Your task to perform on an android device: Go to privacy settings Image 0: 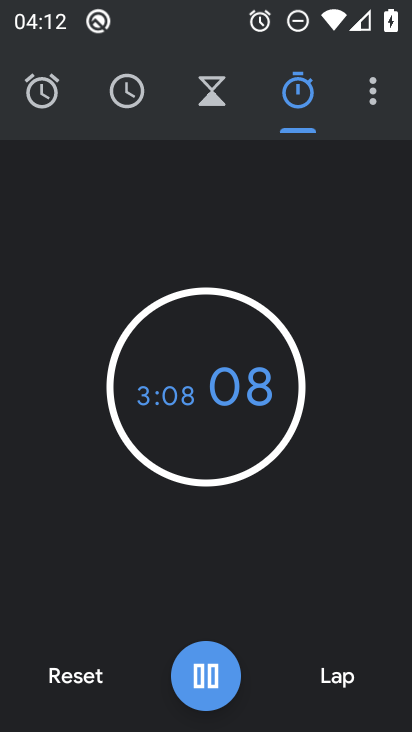
Step 0: press home button
Your task to perform on an android device: Go to privacy settings Image 1: 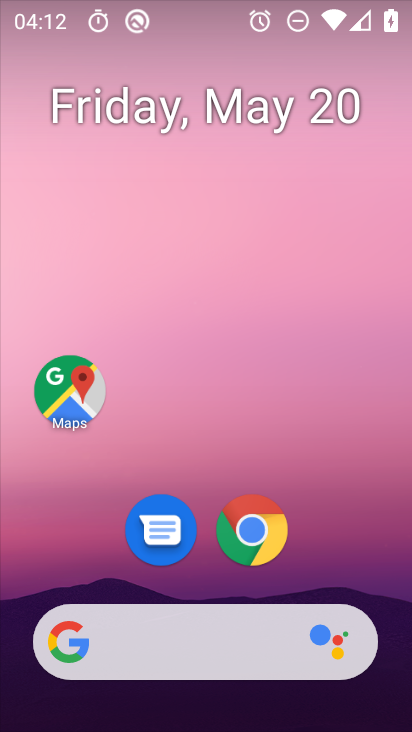
Step 1: click (253, 531)
Your task to perform on an android device: Go to privacy settings Image 2: 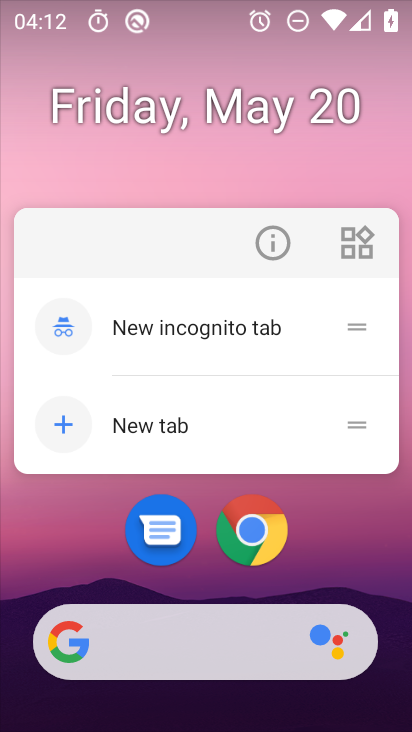
Step 2: click (251, 512)
Your task to perform on an android device: Go to privacy settings Image 3: 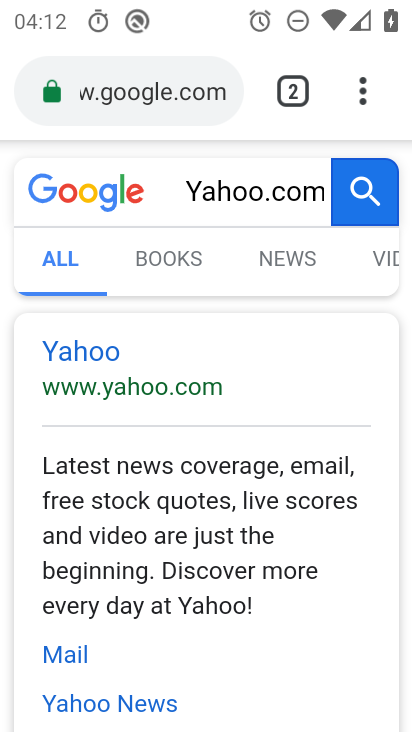
Step 3: click (364, 87)
Your task to perform on an android device: Go to privacy settings Image 4: 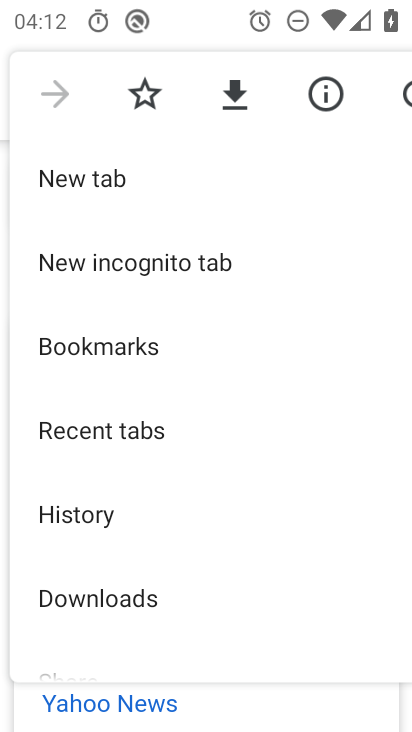
Step 4: drag from (279, 648) to (274, 362)
Your task to perform on an android device: Go to privacy settings Image 5: 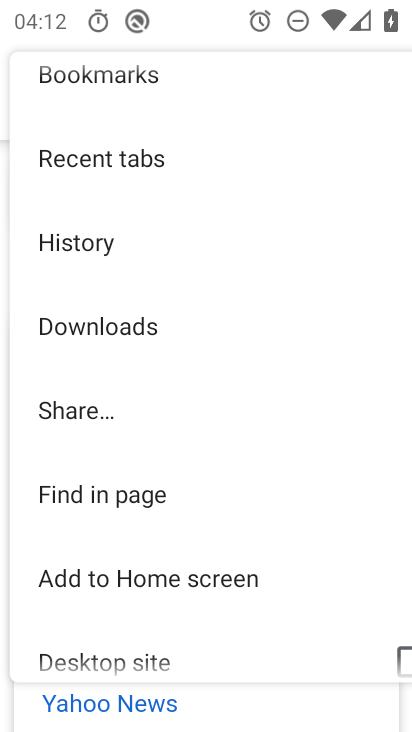
Step 5: drag from (302, 623) to (291, 346)
Your task to perform on an android device: Go to privacy settings Image 6: 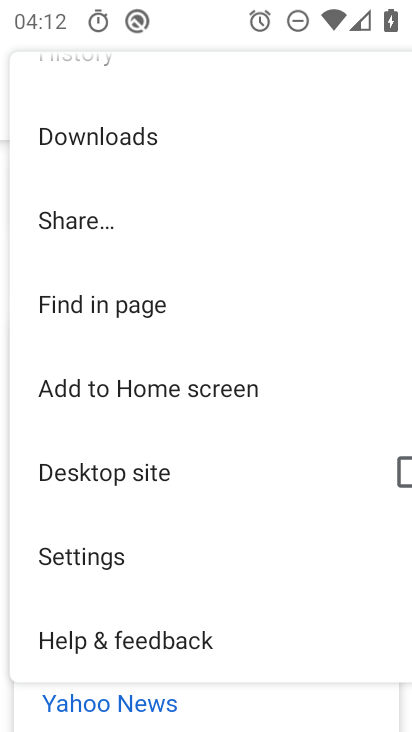
Step 6: click (84, 550)
Your task to perform on an android device: Go to privacy settings Image 7: 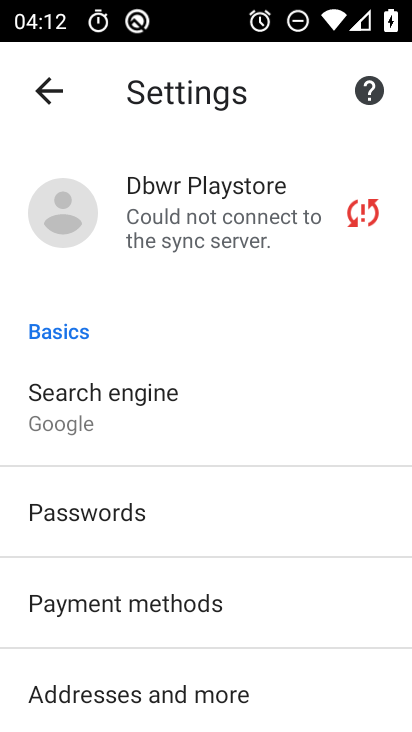
Step 7: drag from (293, 704) to (277, 322)
Your task to perform on an android device: Go to privacy settings Image 8: 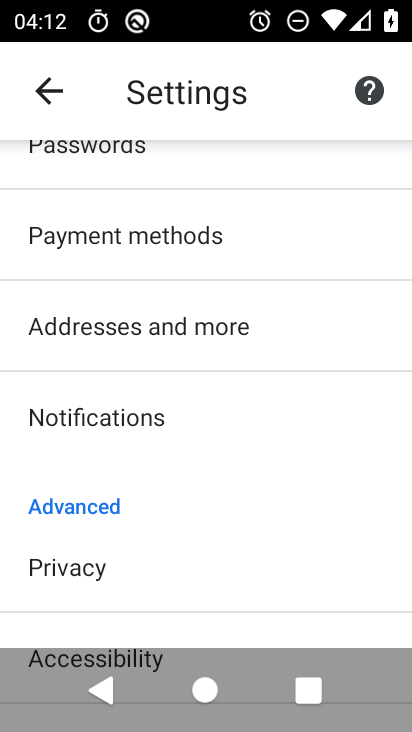
Step 8: click (57, 558)
Your task to perform on an android device: Go to privacy settings Image 9: 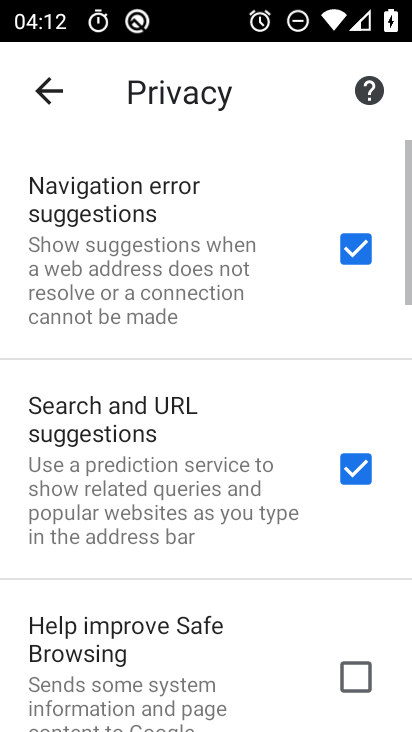
Step 9: task complete